Your task to perform on an android device: Show me popular videos on Youtube Image 0: 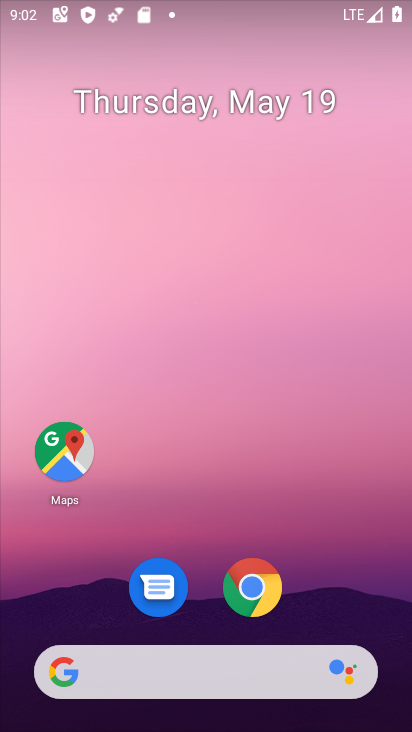
Step 0: drag from (345, 569) to (200, 57)
Your task to perform on an android device: Show me popular videos on Youtube Image 1: 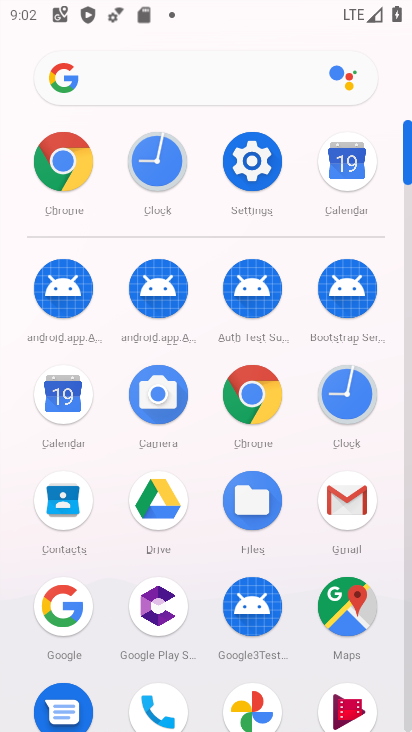
Step 1: drag from (20, 585) to (44, 250)
Your task to perform on an android device: Show me popular videos on Youtube Image 2: 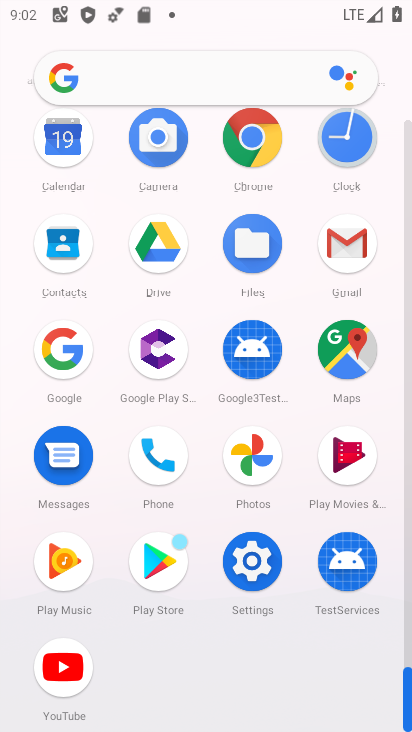
Step 2: click (65, 661)
Your task to perform on an android device: Show me popular videos on Youtube Image 3: 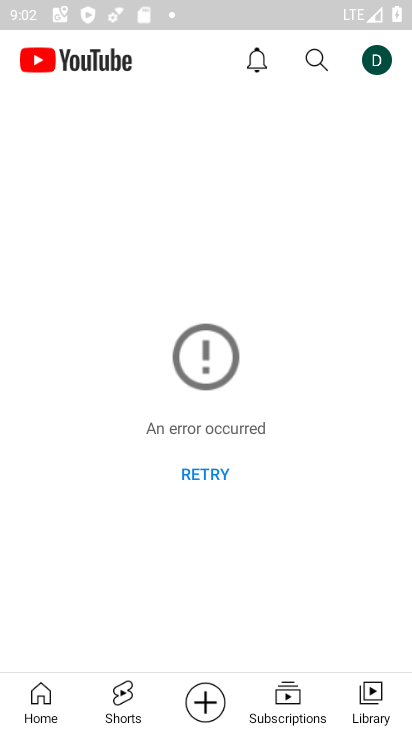
Step 3: click (390, 696)
Your task to perform on an android device: Show me popular videos on Youtube Image 4: 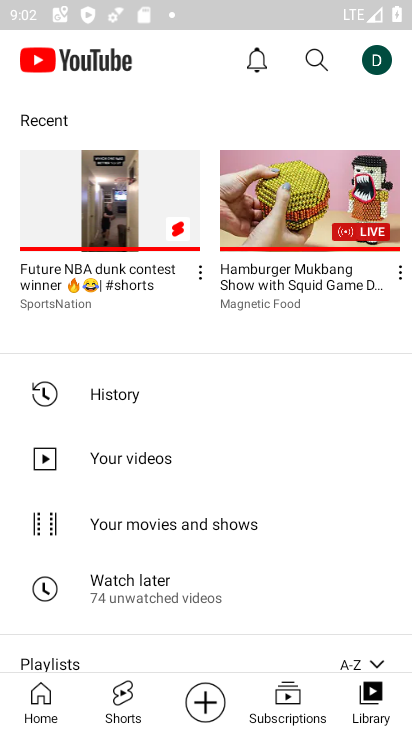
Step 4: click (42, 686)
Your task to perform on an android device: Show me popular videos on Youtube Image 5: 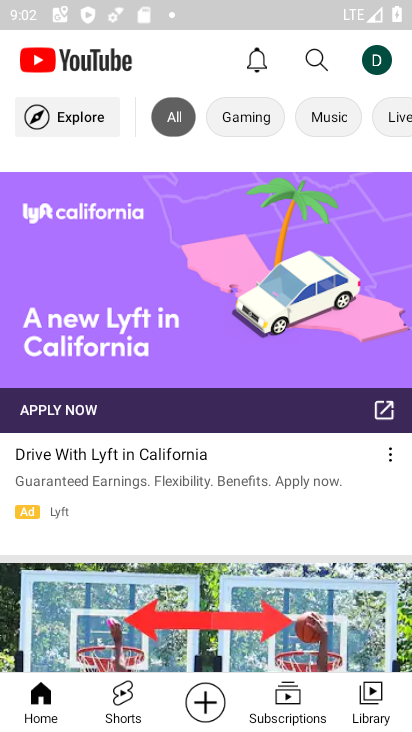
Step 5: click (77, 110)
Your task to perform on an android device: Show me popular videos on Youtube Image 6: 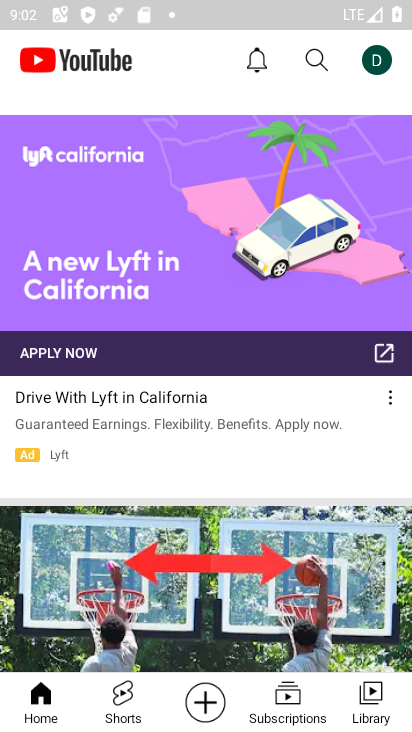
Step 6: task complete